Your task to perform on an android device: Search for Mexican restaurants on Maps Image 0: 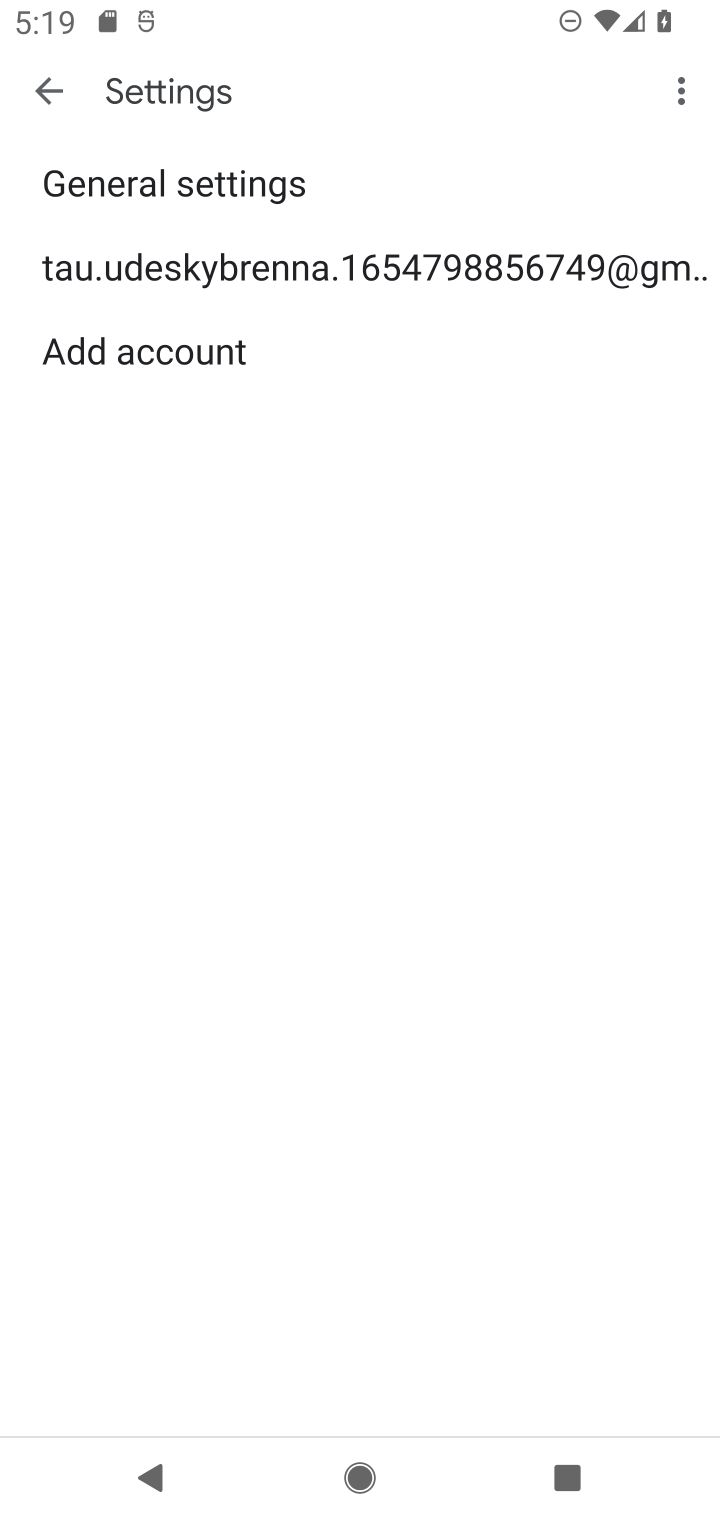
Step 0: press home button
Your task to perform on an android device: Search for Mexican restaurants on Maps Image 1: 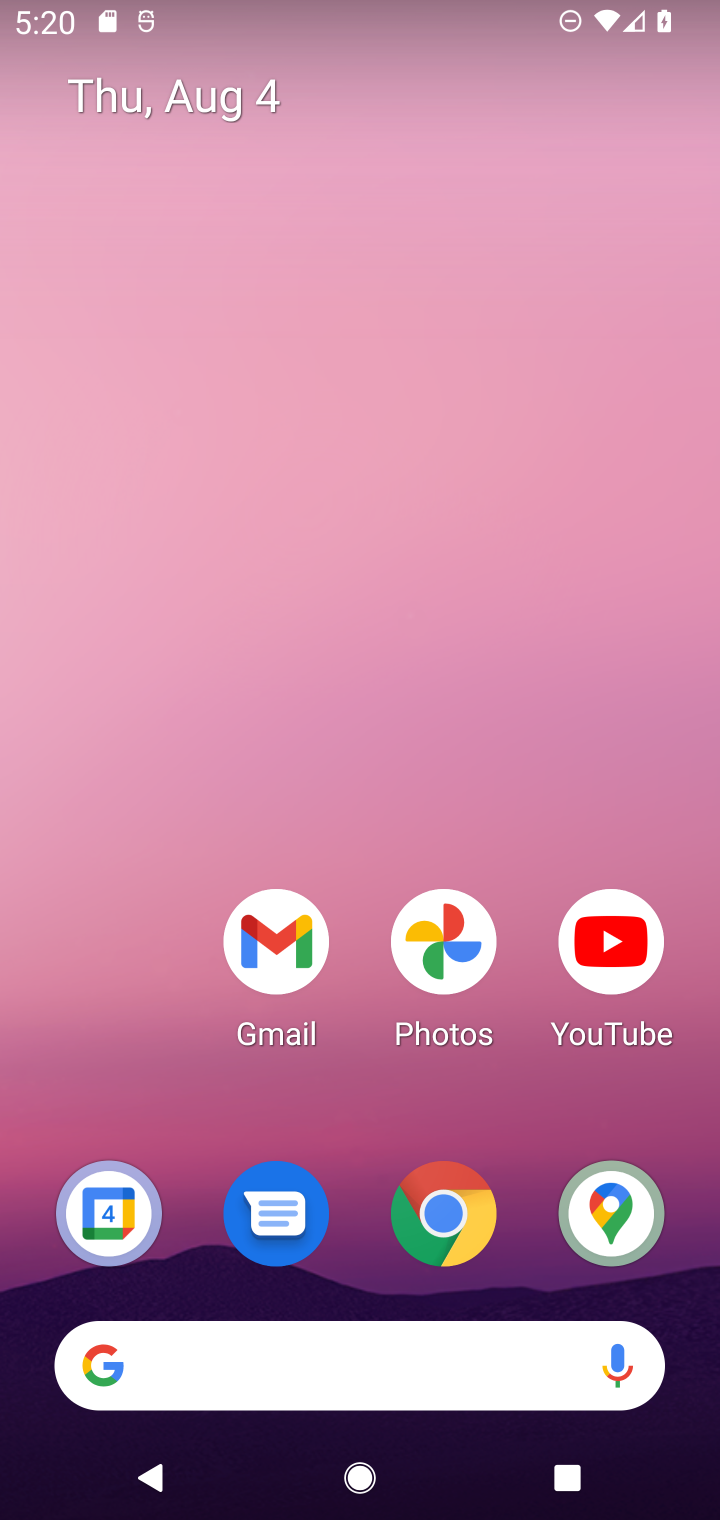
Step 1: drag from (139, 1118) to (214, 483)
Your task to perform on an android device: Search for Mexican restaurants on Maps Image 2: 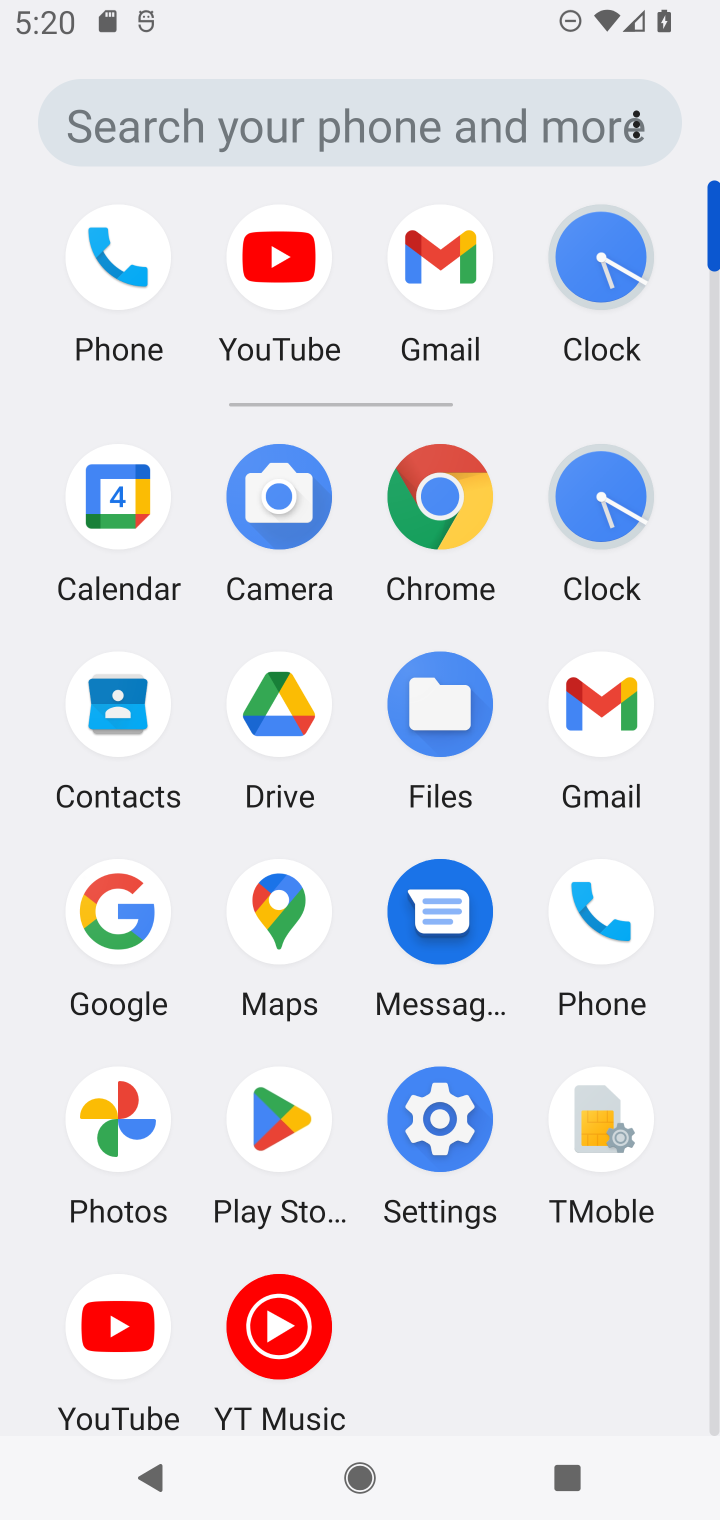
Step 2: click (272, 932)
Your task to perform on an android device: Search for Mexican restaurants on Maps Image 3: 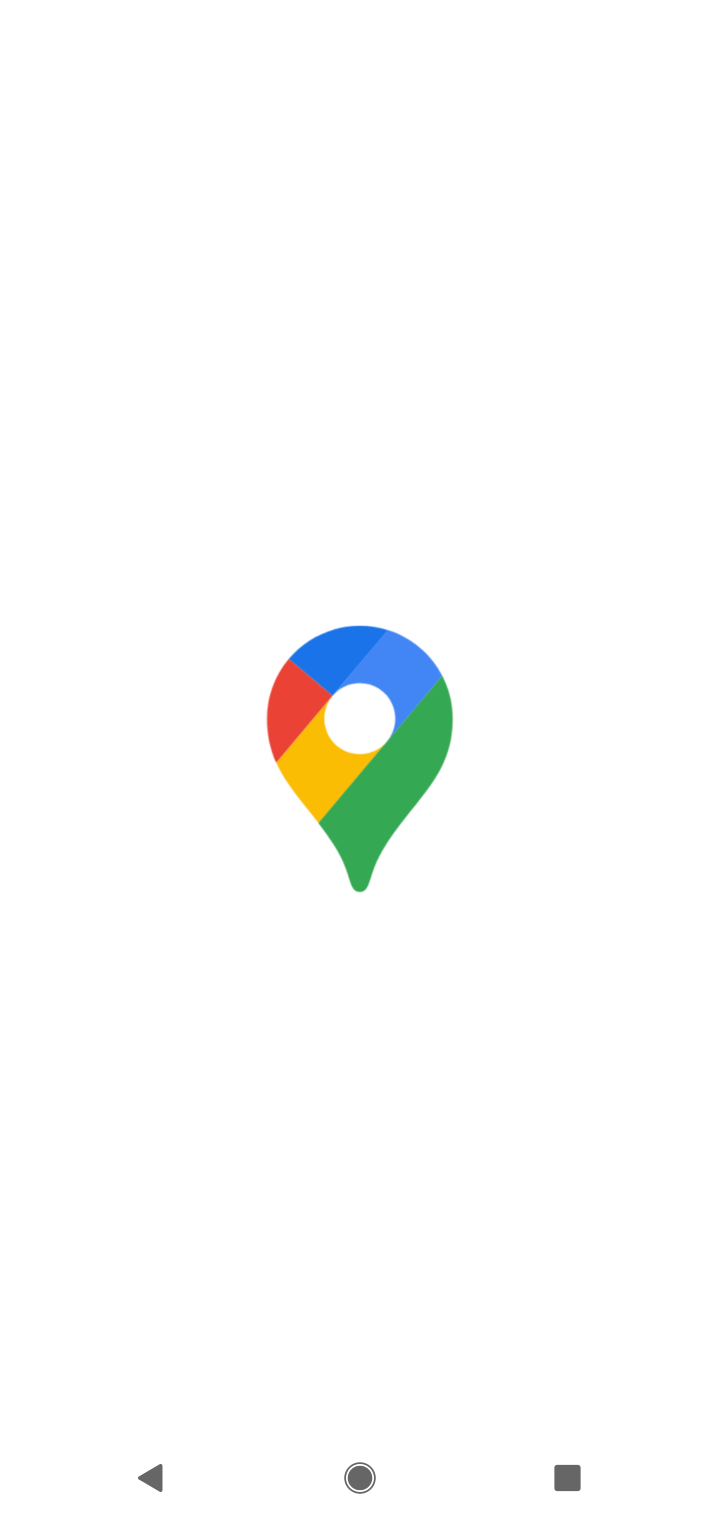
Step 3: task complete